Your task to perform on an android device: Open wifi settings Image 0: 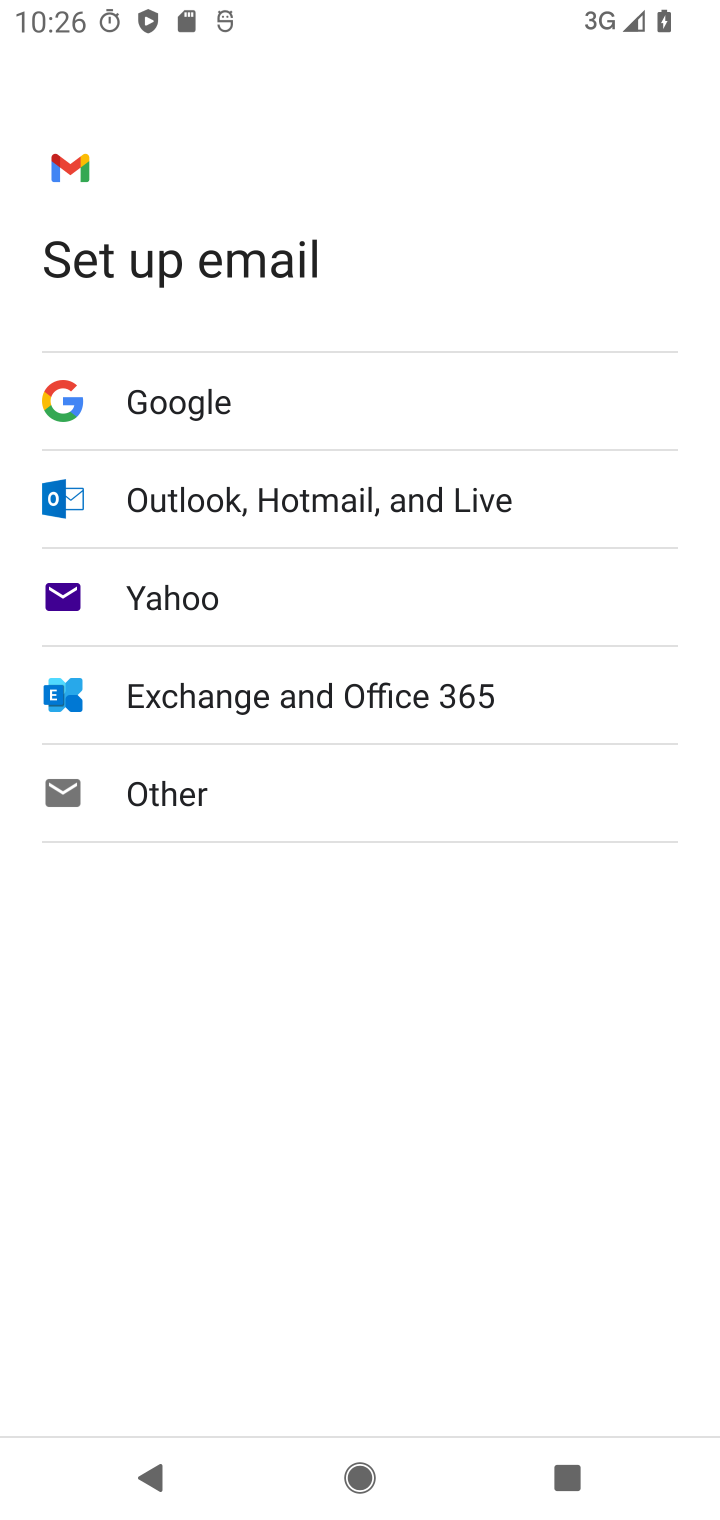
Step 0: press home button
Your task to perform on an android device: Open wifi settings Image 1: 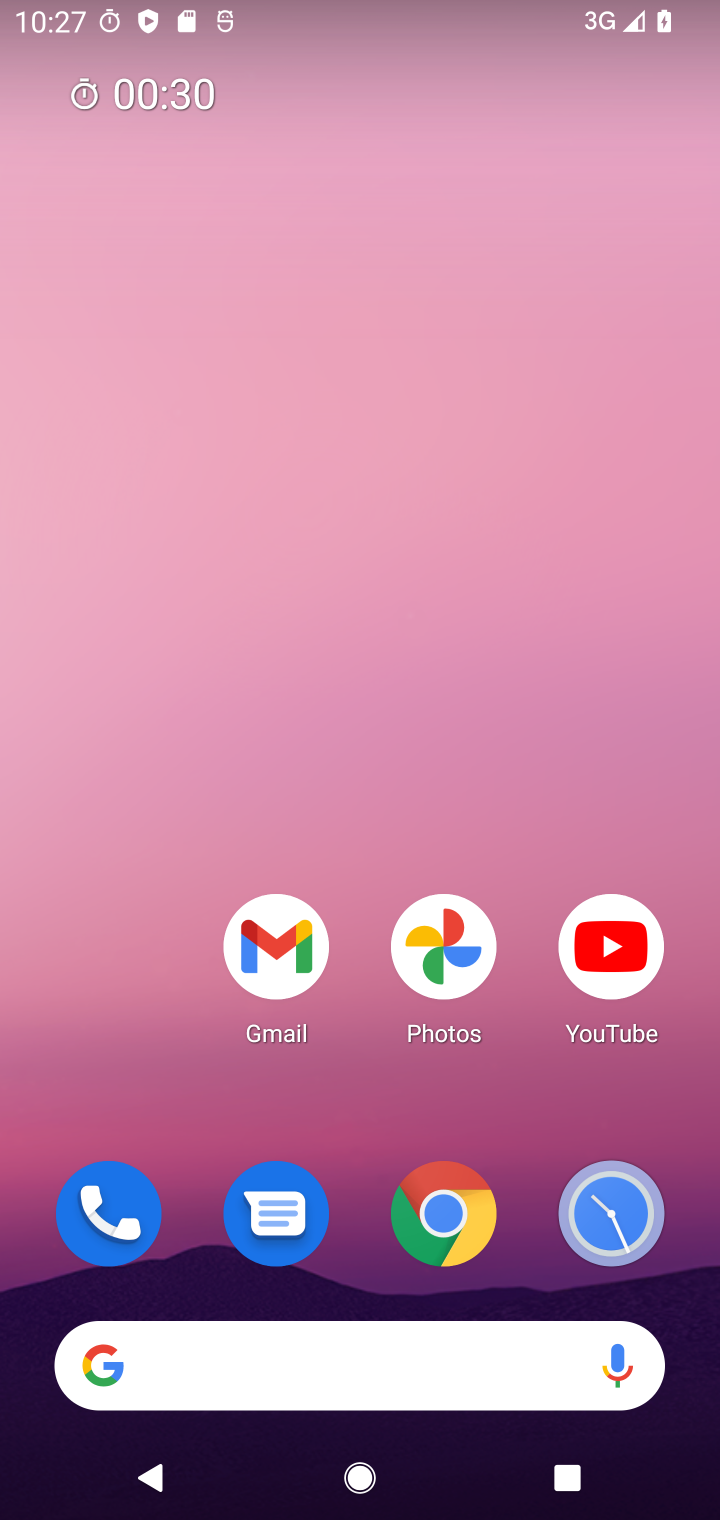
Step 1: drag from (360, 1090) to (288, 314)
Your task to perform on an android device: Open wifi settings Image 2: 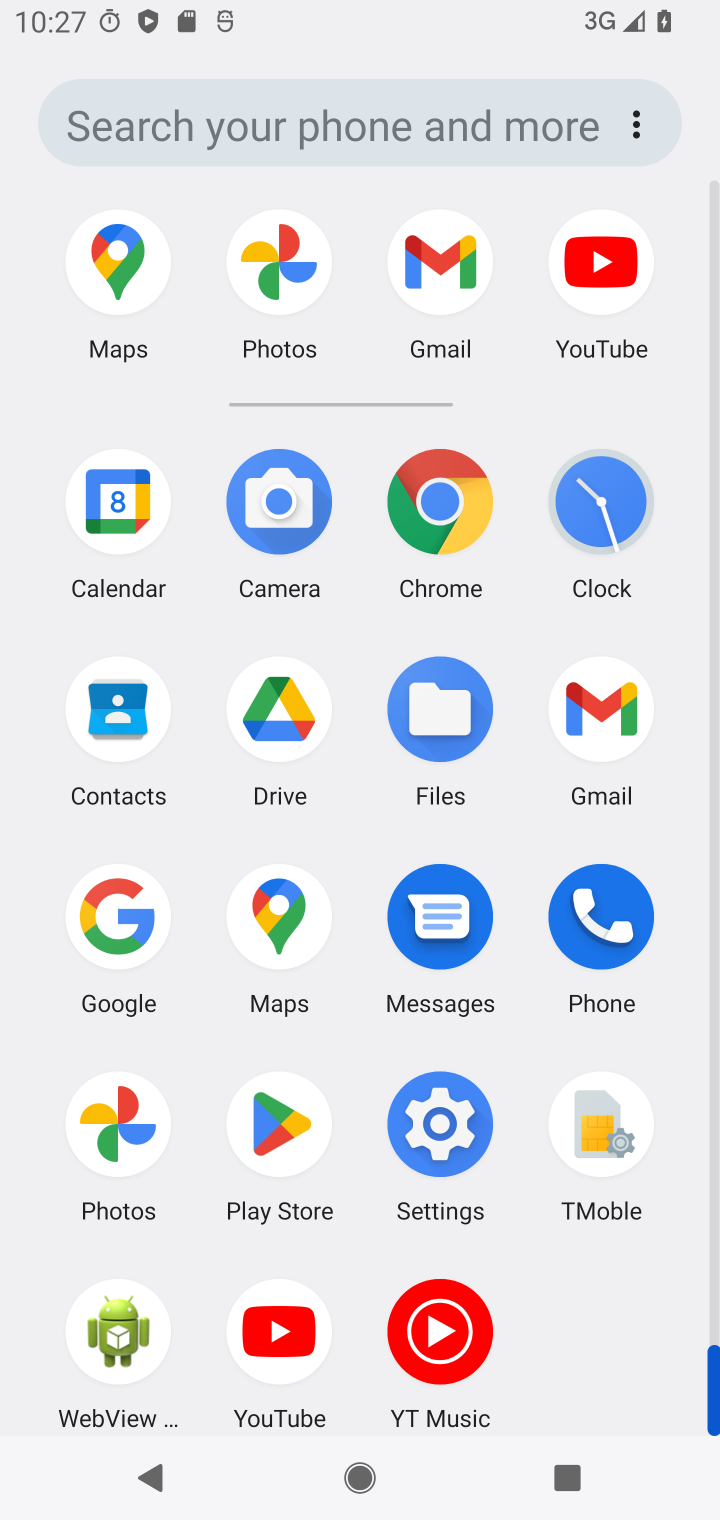
Step 2: click (458, 1175)
Your task to perform on an android device: Open wifi settings Image 3: 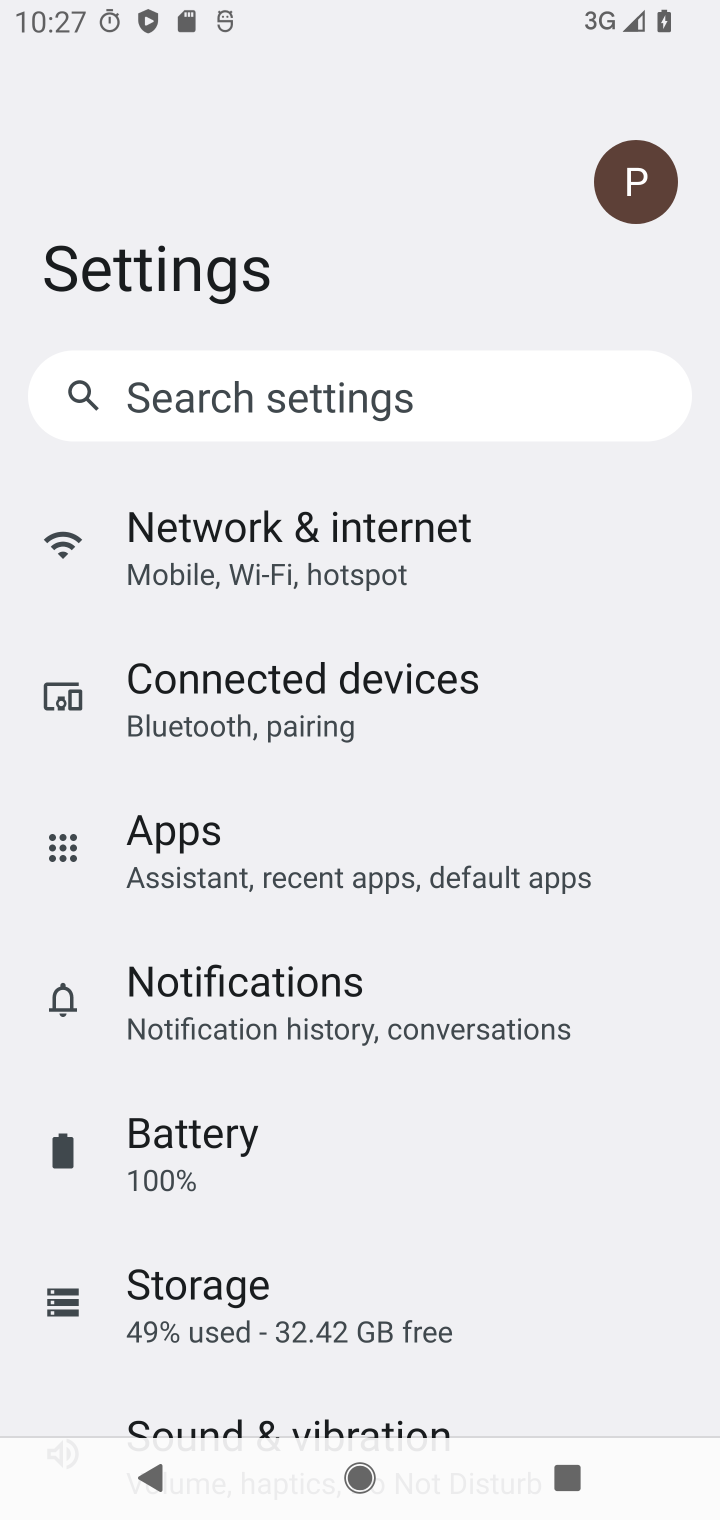
Step 3: click (388, 533)
Your task to perform on an android device: Open wifi settings Image 4: 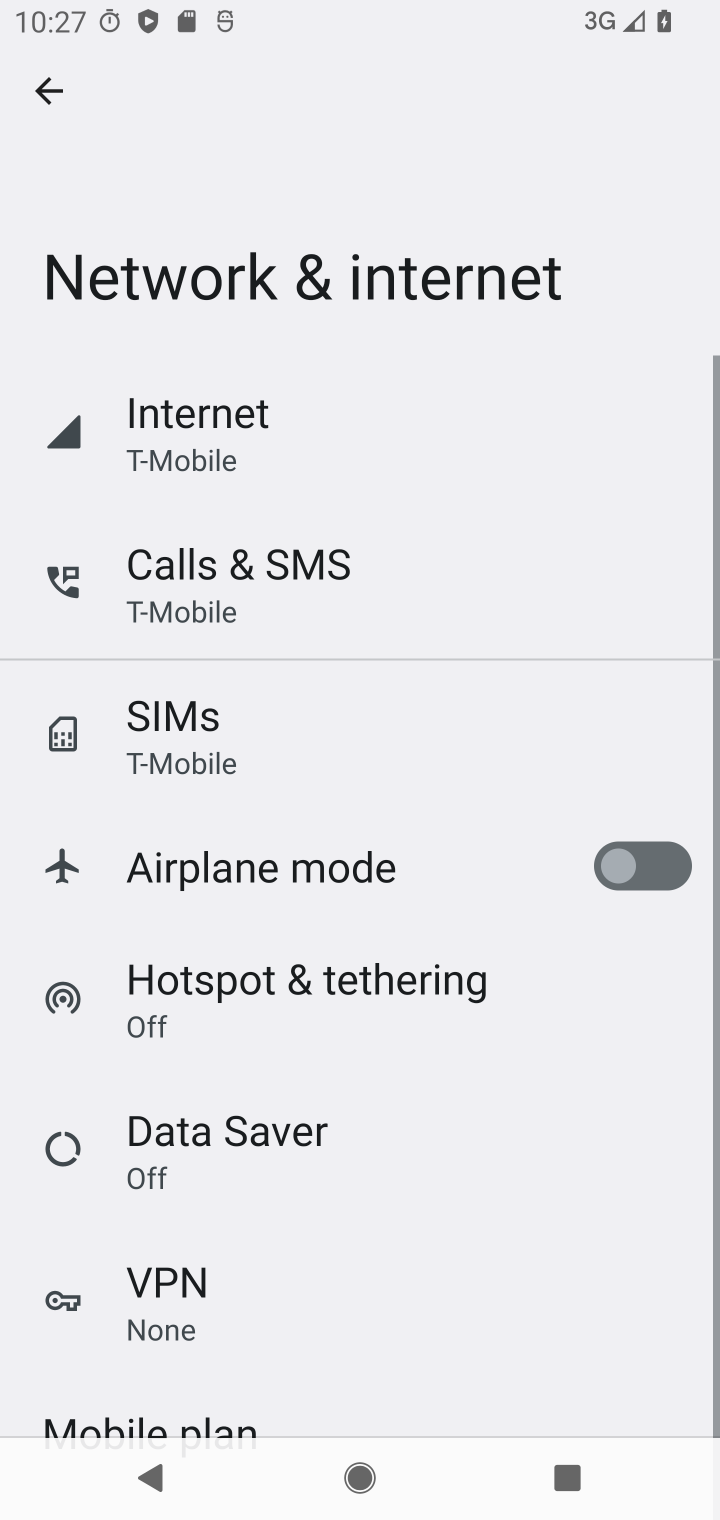
Step 4: click (366, 462)
Your task to perform on an android device: Open wifi settings Image 5: 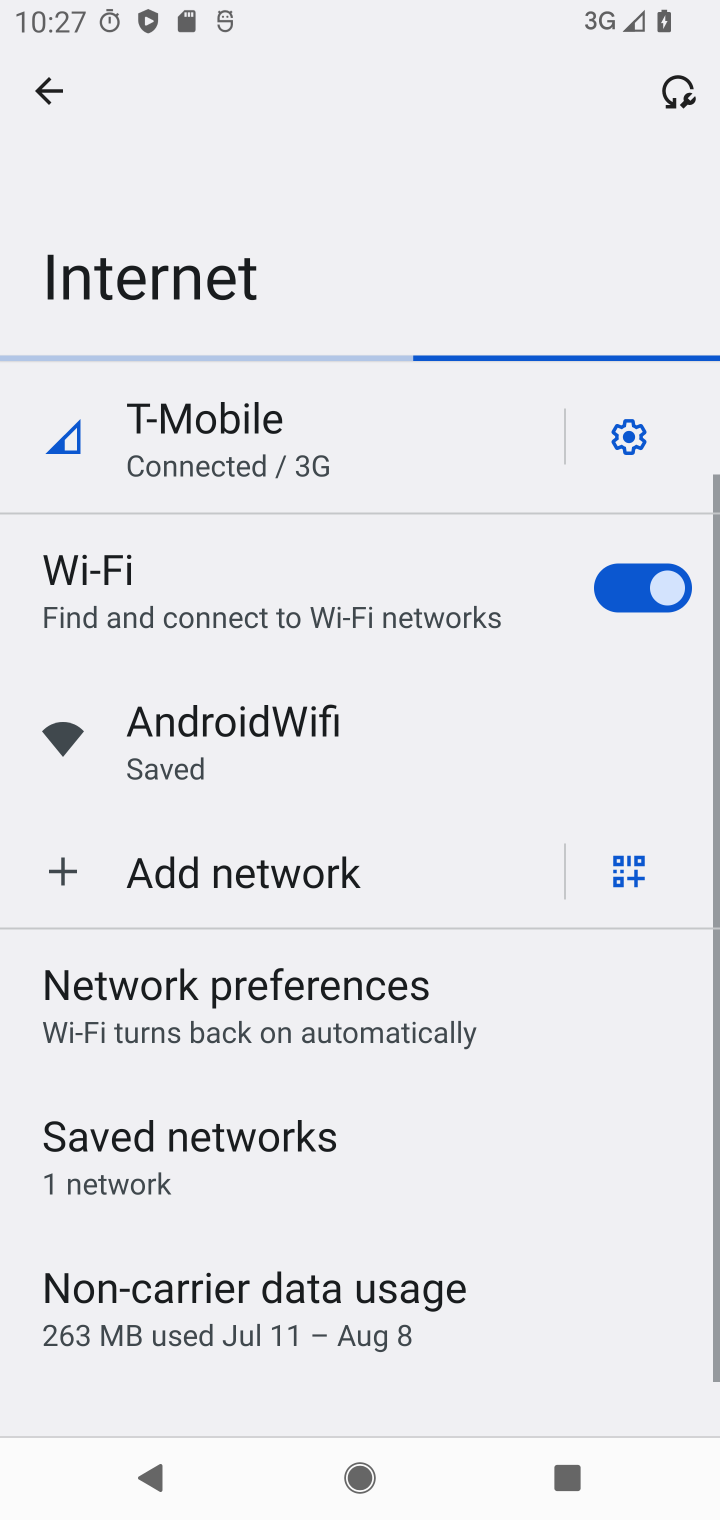
Step 5: click (324, 750)
Your task to perform on an android device: Open wifi settings Image 6: 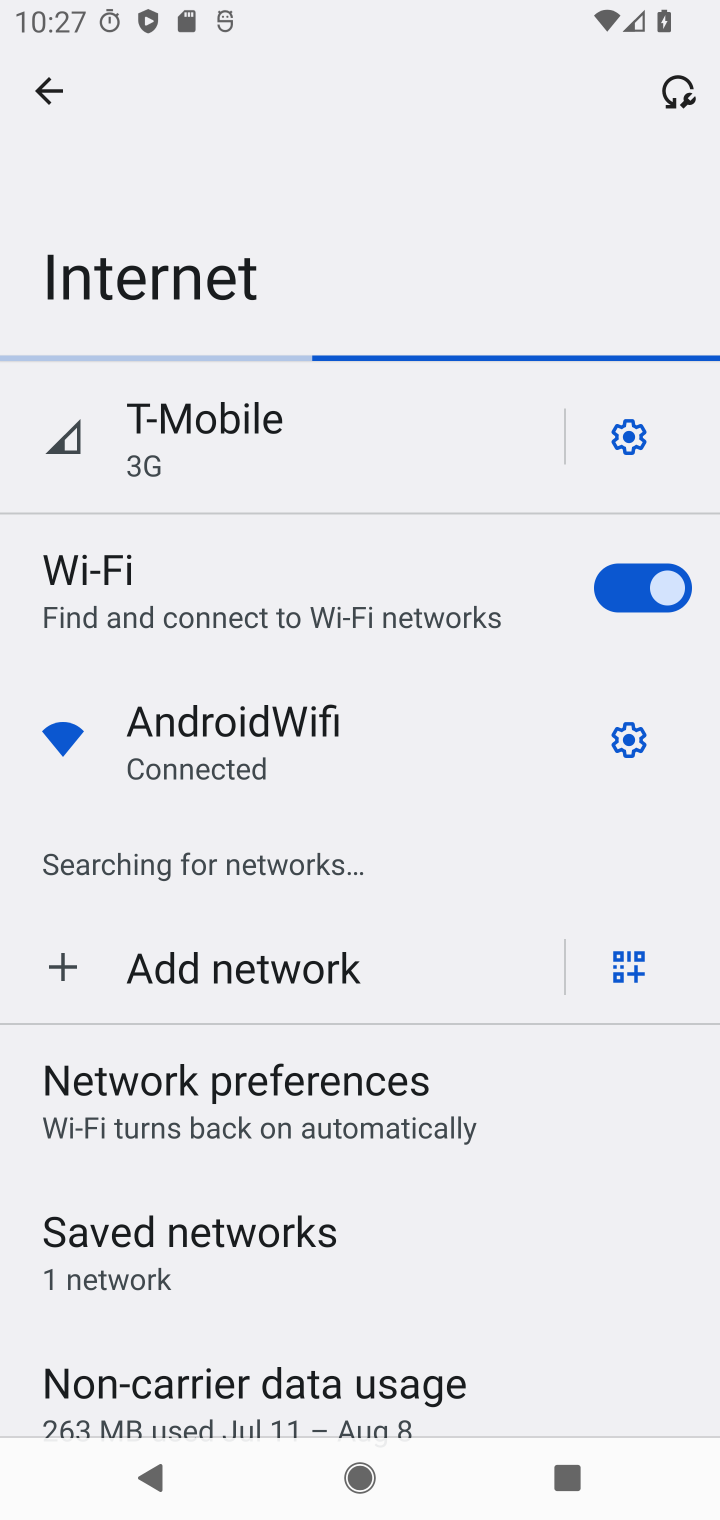
Step 6: click (640, 724)
Your task to perform on an android device: Open wifi settings Image 7: 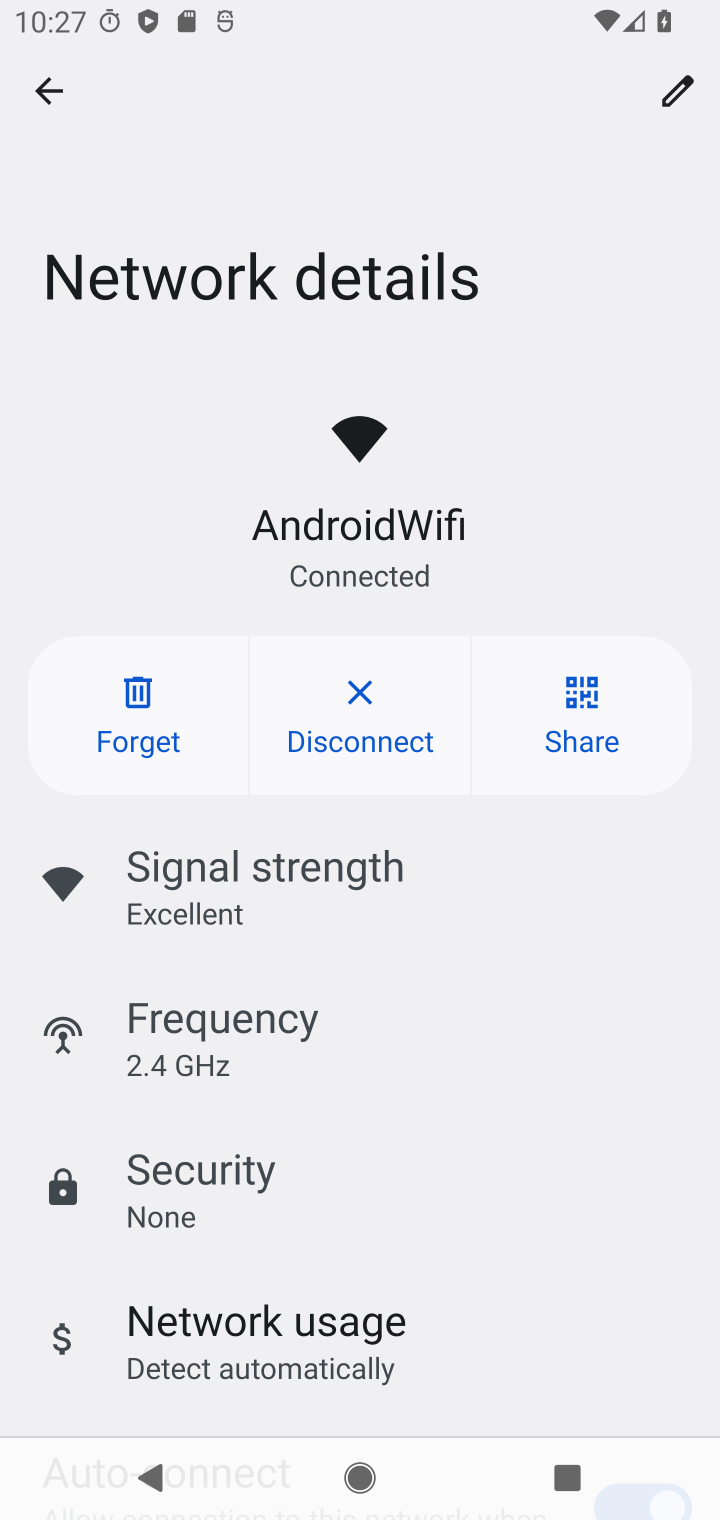
Step 7: task complete